Your task to perform on an android device: change the clock display to digital Image 0: 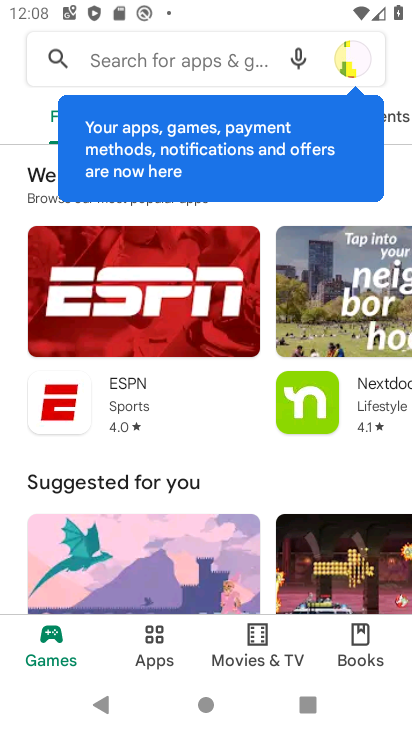
Step 0: press home button
Your task to perform on an android device: change the clock display to digital Image 1: 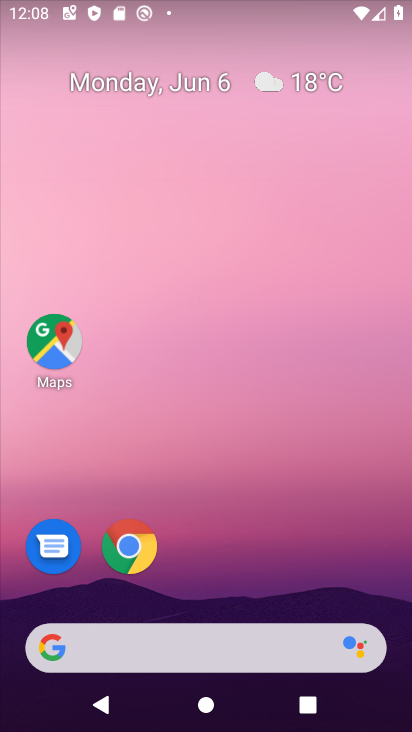
Step 1: drag from (136, 611) to (164, 168)
Your task to perform on an android device: change the clock display to digital Image 2: 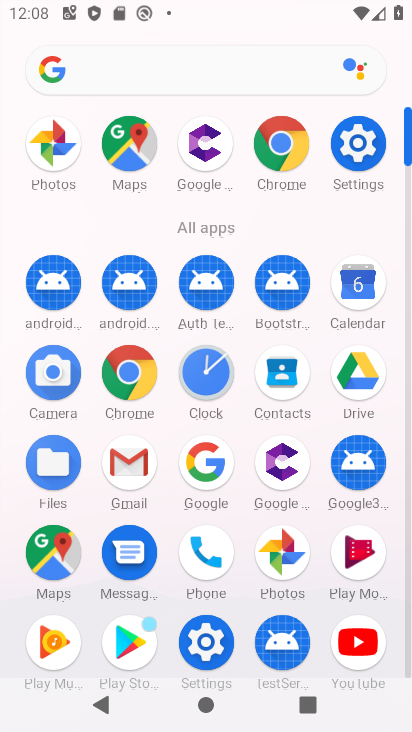
Step 2: click (208, 375)
Your task to perform on an android device: change the clock display to digital Image 3: 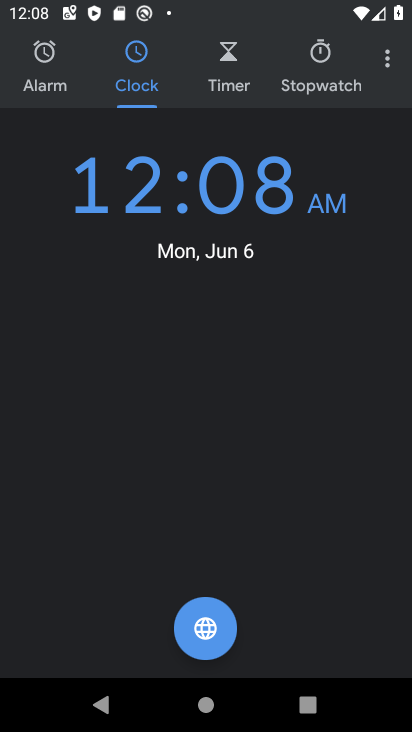
Step 3: click (385, 74)
Your task to perform on an android device: change the clock display to digital Image 4: 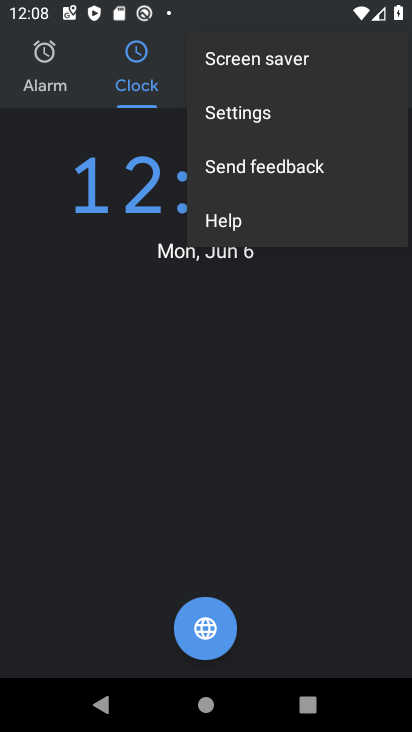
Step 4: click (283, 120)
Your task to perform on an android device: change the clock display to digital Image 5: 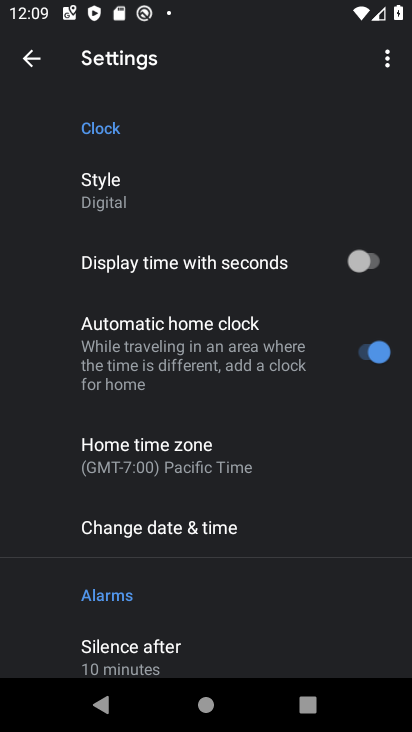
Step 5: task complete